Your task to perform on an android device: Show me popular videos on Youtube Image 0: 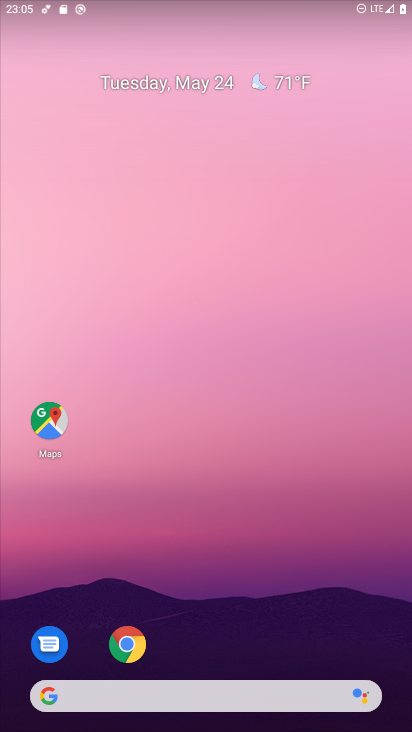
Step 0: drag from (266, 553) to (149, 0)
Your task to perform on an android device: Show me popular videos on Youtube Image 1: 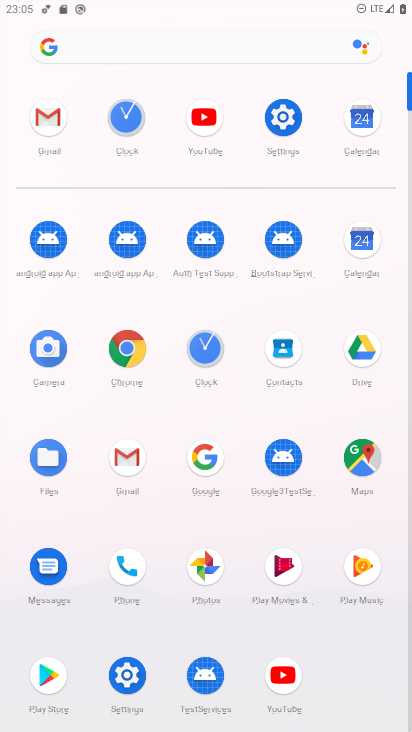
Step 1: click (200, 125)
Your task to perform on an android device: Show me popular videos on Youtube Image 2: 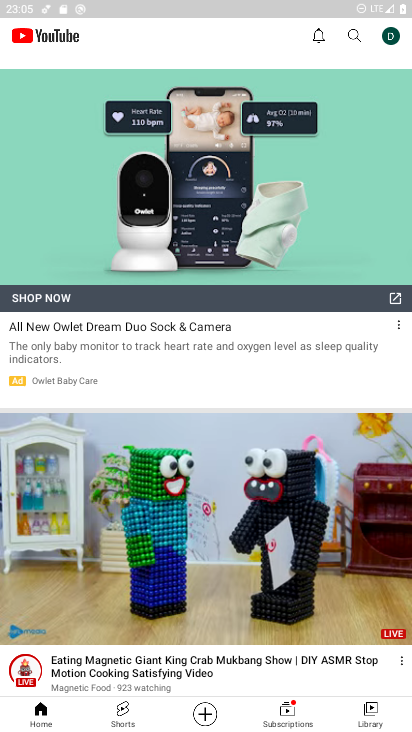
Step 2: click (122, 708)
Your task to perform on an android device: Show me popular videos on Youtube Image 3: 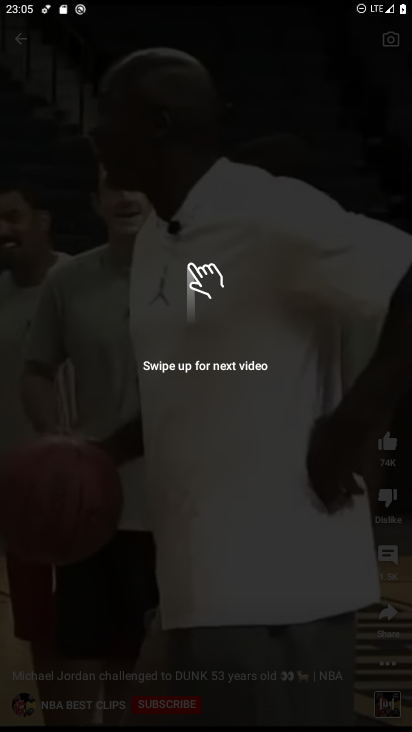
Step 3: task complete